Your task to perform on an android device: star an email in the gmail app Image 0: 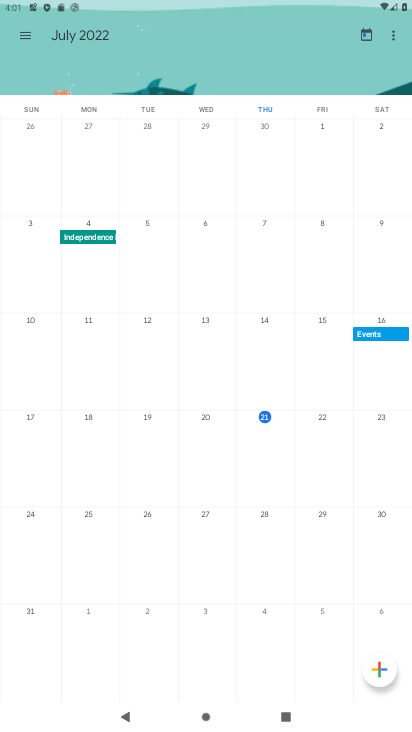
Step 0: press home button
Your task to perform on an android device: star an email in the gmail app Image 1: 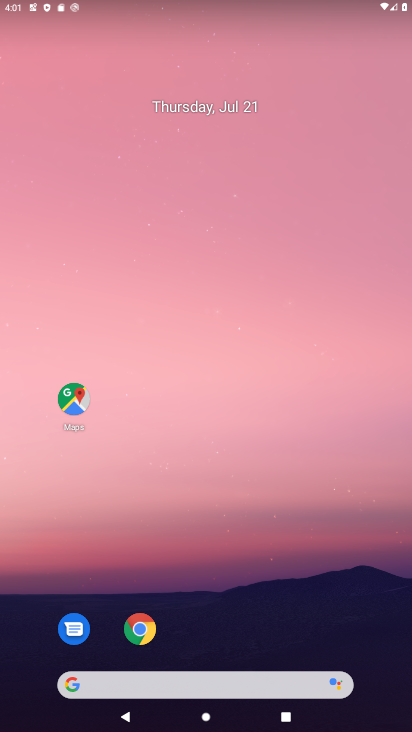
Step 1: drag from (204, 641) to (192, 233)
Your task to perform on an android device: star an email in the gmail app Image 2: 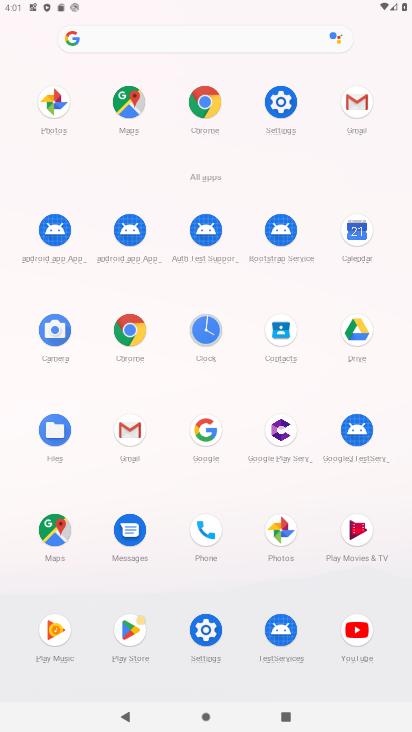
Step 2: click (135, 436)
Your task to perform on an android device: star an email in the gmail app Image 3: 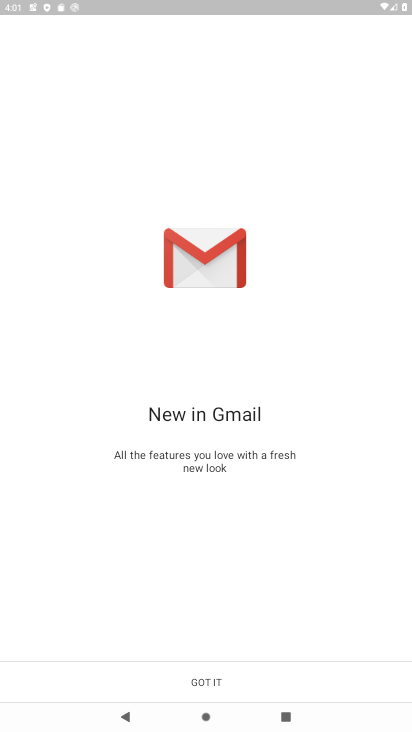
Step 3: click (202, 683)
Your task to perform on an android device: star an email in the gmail app Image 4: 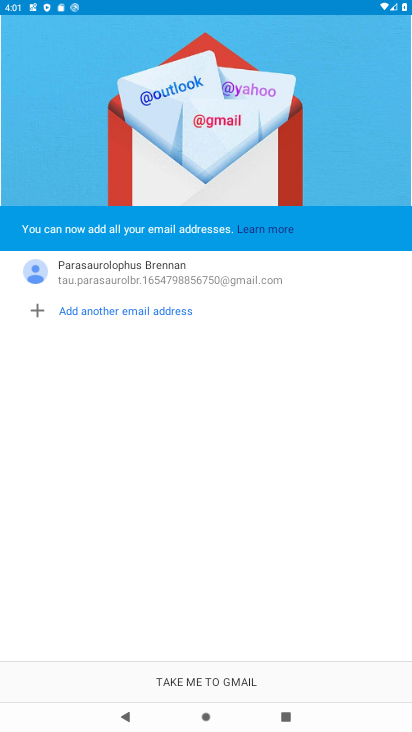
Step 4: click (247, 680)
Your task to perform on an android device: star an email in the gmail app Image 5: 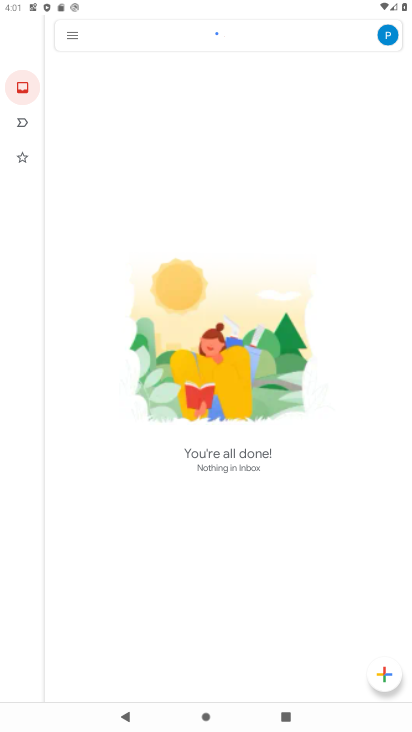
Step 5: click (63, 39)
Your task to perform on an android device: star an email in the gmail app Image 6: 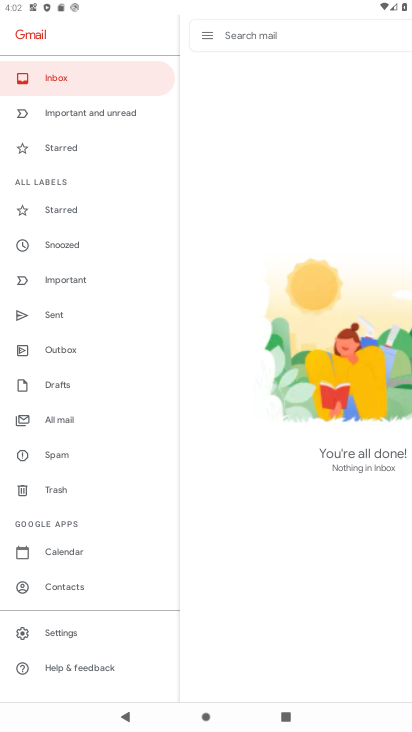
Step 6: click (64, 426)
Your task to perform on an android device: star an email in the gmail app Image 7: 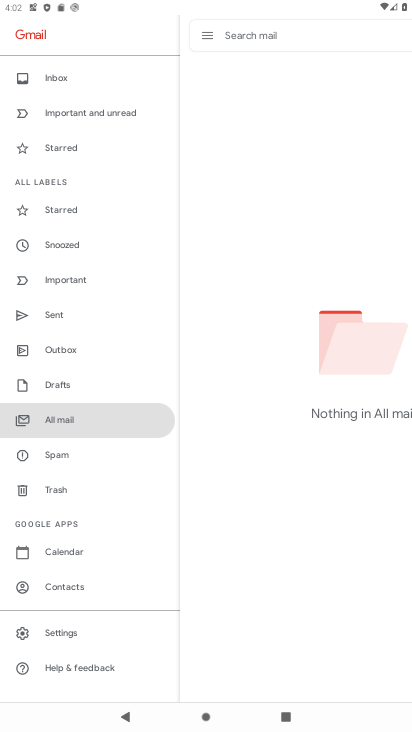
Step 7: task complete